Your task to perform on an android device: Open my contact list Image 0: 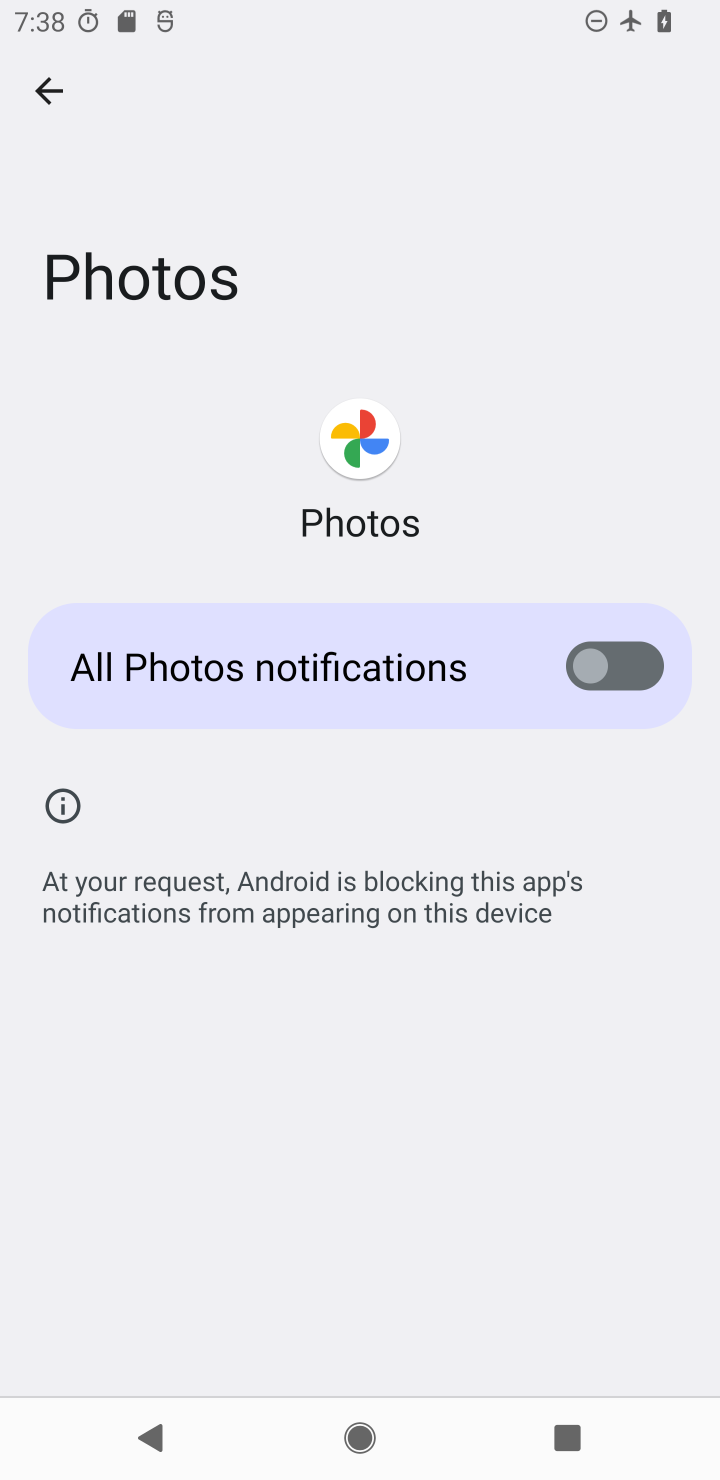
Step 0: press home button
Your task to perform on an android device: Open my contact list Image 1: 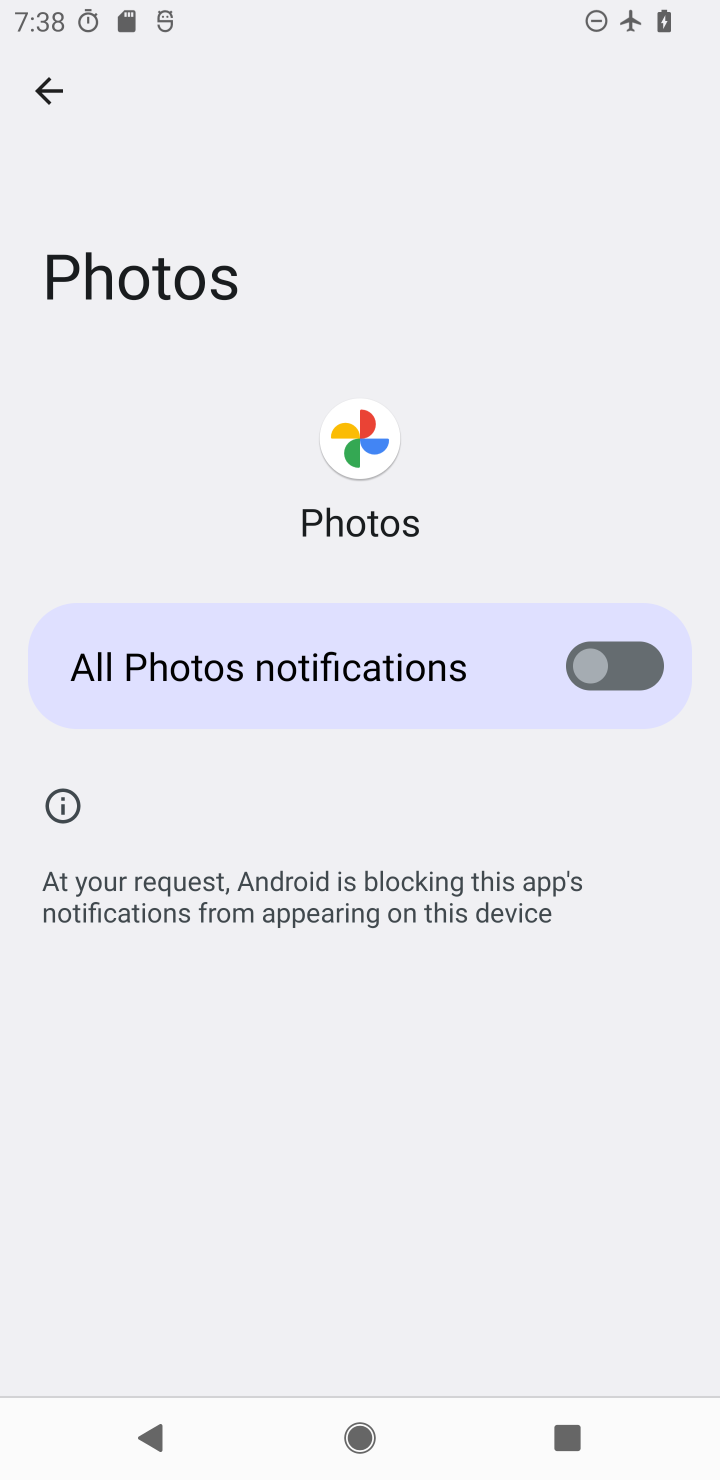
Step 1: press home button
Your task to perform on an android device: Open my contact list Image 2: 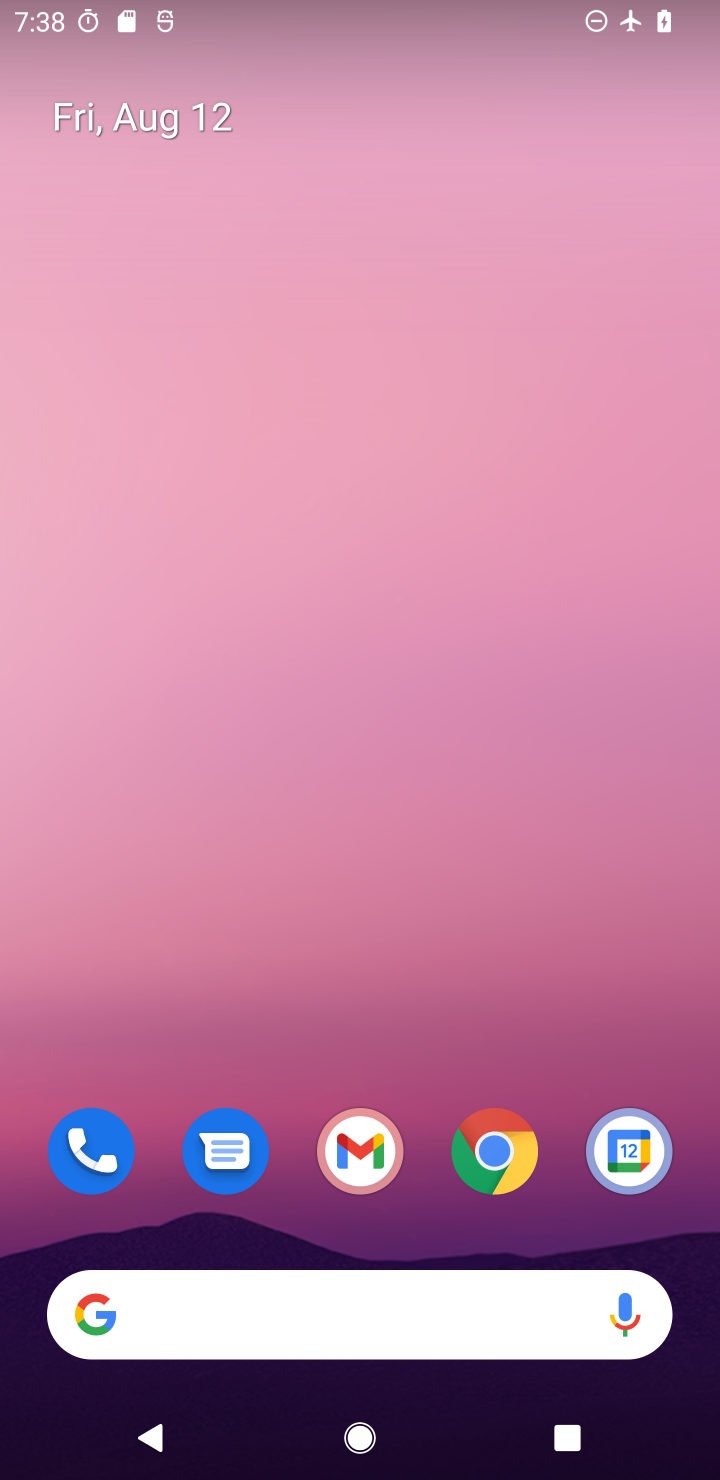
Step 2: drag from (396, 972) to (442, 118)
Your task to perform on an android device: Open my contact list Image 3: 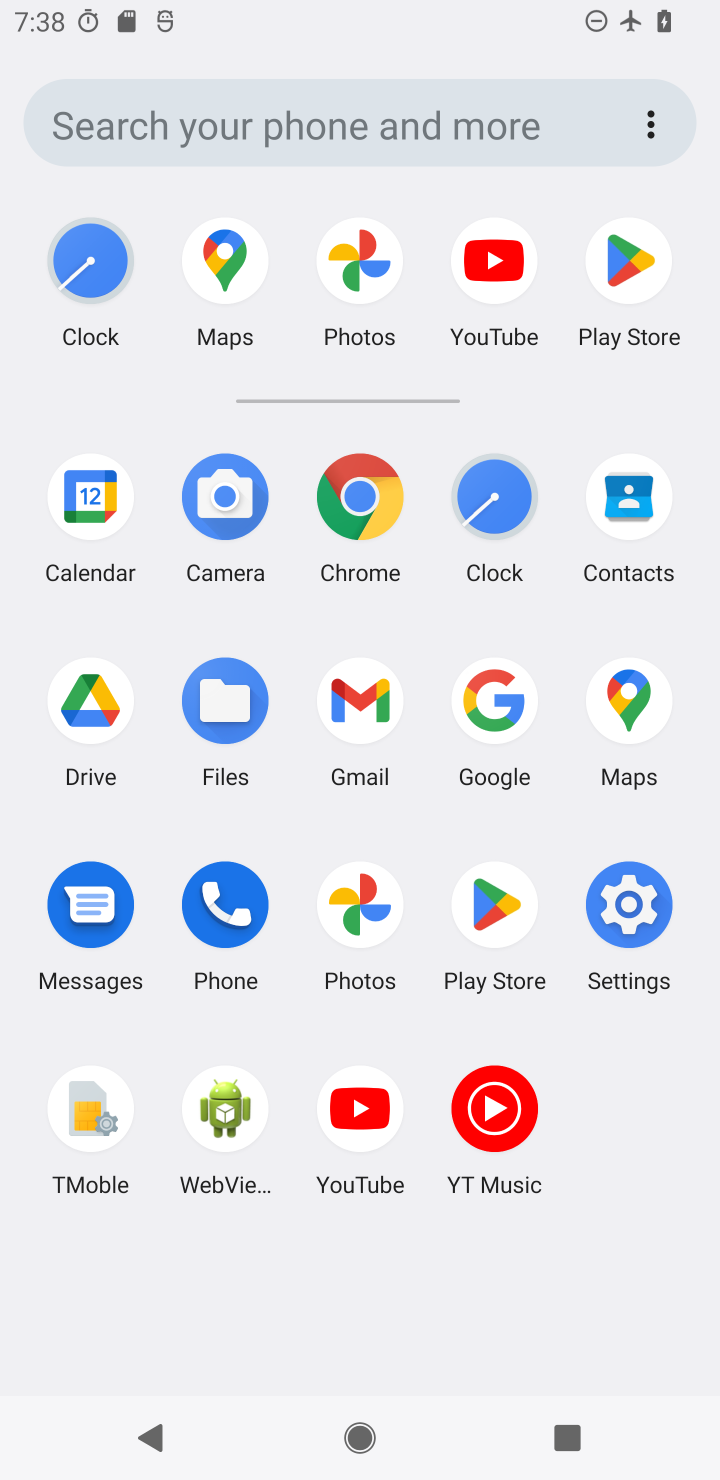
Step 3: click (618, 489)
Your task to perform on an android device: Open my contact list Image 4: 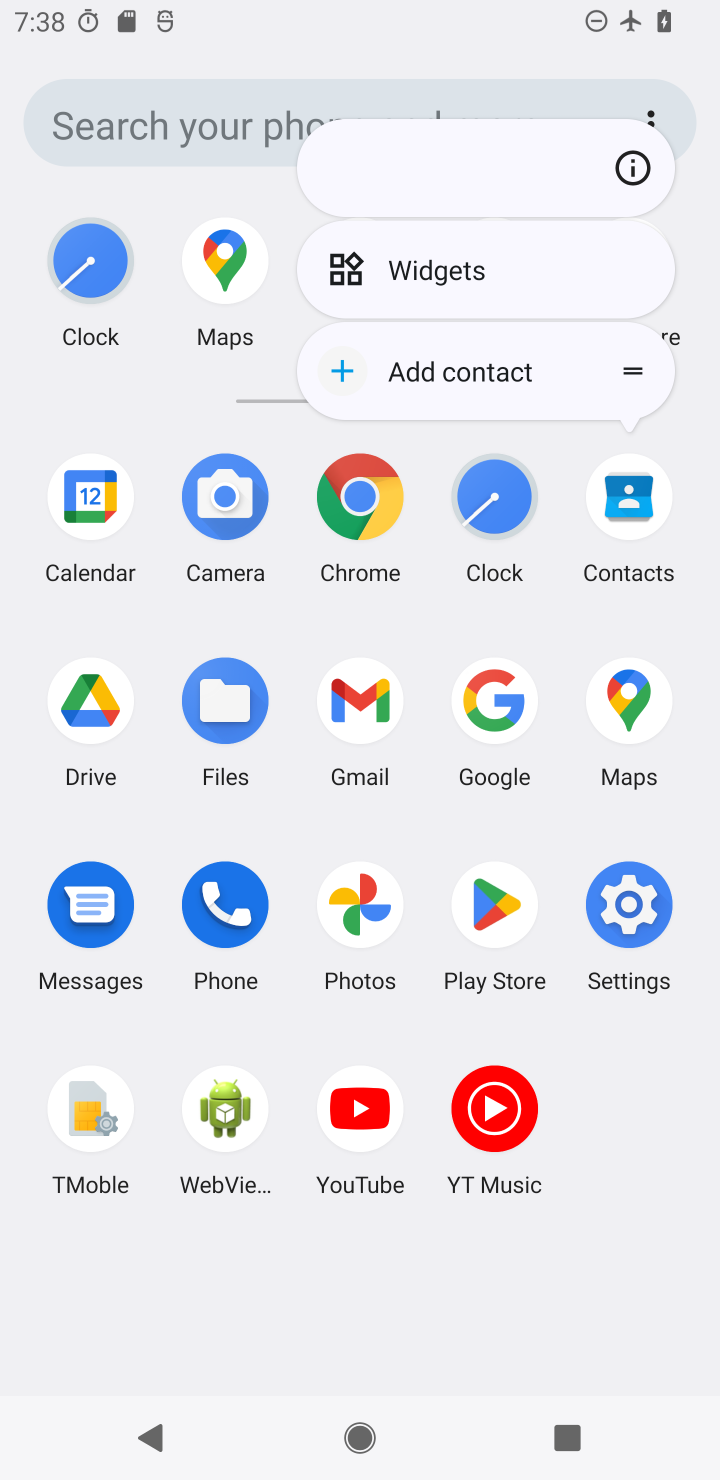
Step 4: click (627, 502)
Your task to perform on an android device: Open my contact list Image 5: 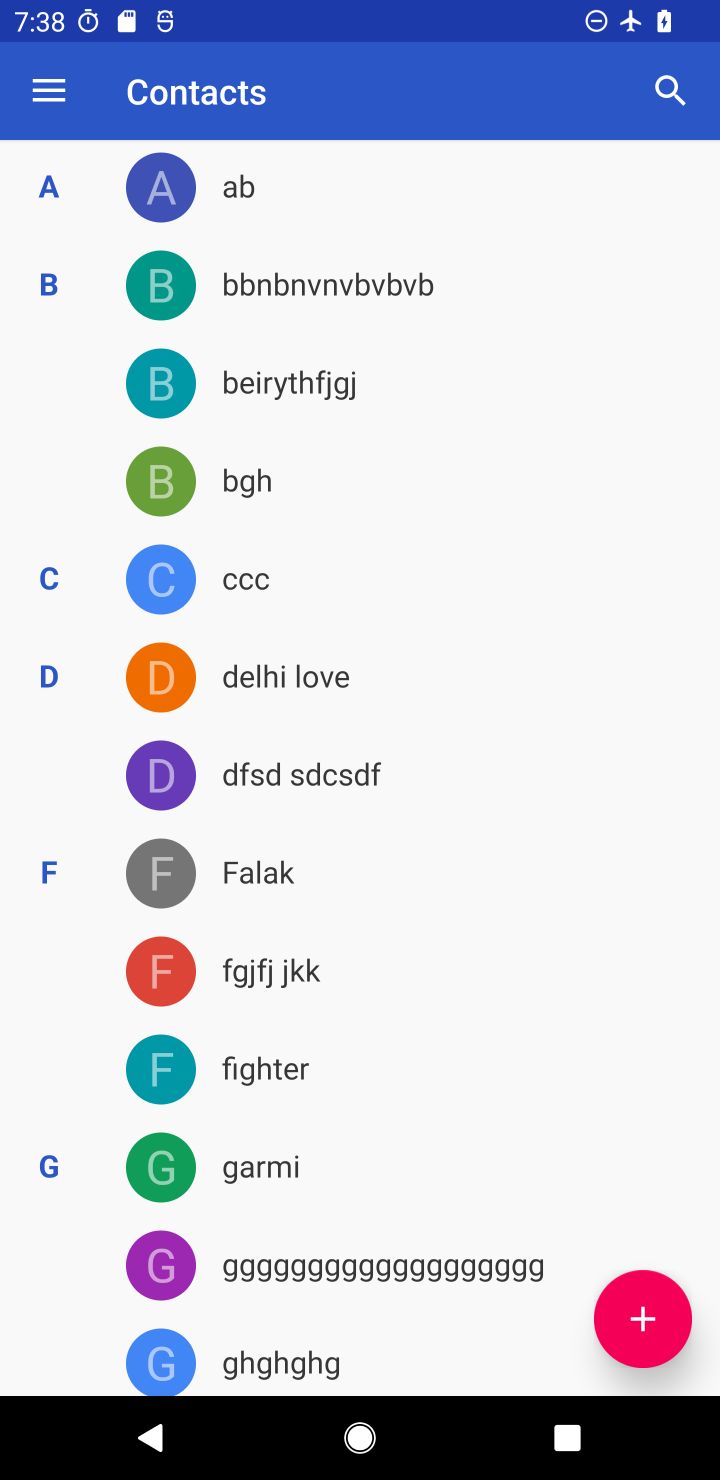
Step 5: task complete